Your task to perform on an android device: all mails in gmail Image 0: 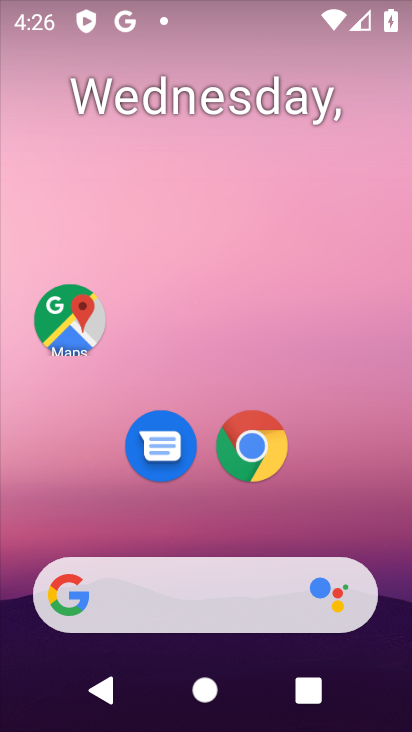
Step 0: drag from (121, 551) to (222, 99)
Your task to perform on an android device: all mails in gmail Image 1: 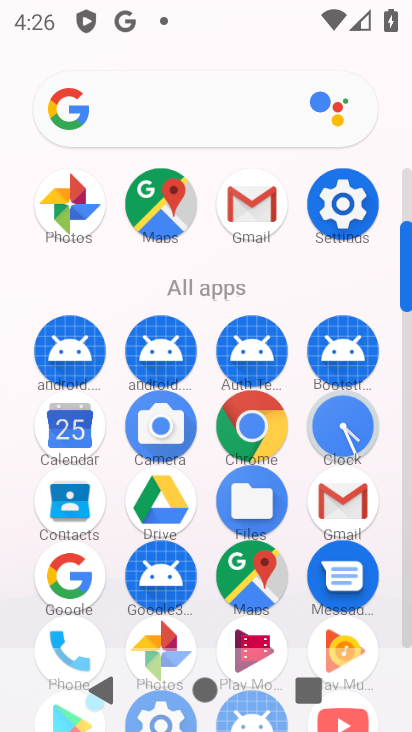
Step 1: click (329, 517)
Your task to perform on an android device: all mails in gmail Image 2: 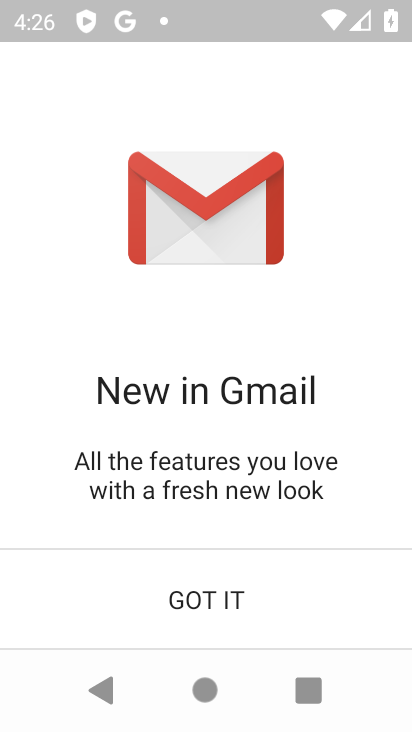
Step 2: click (199, 592)
Your task to perform on an android device: all mails in gmail Image 3: 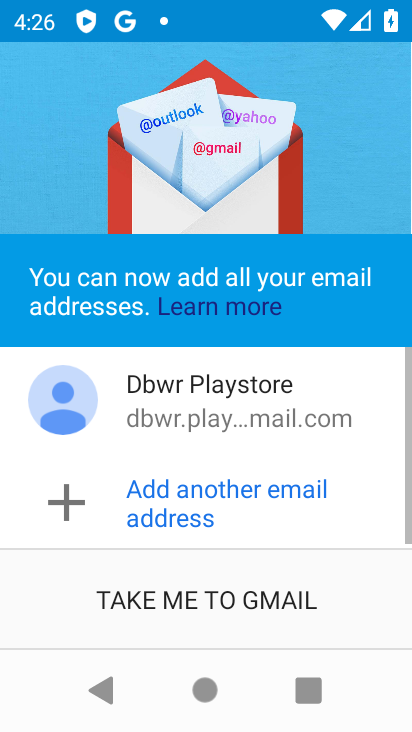
Step 3: click (198, 596)
Your task to perform on an android device: all mails in gmail Image 4: 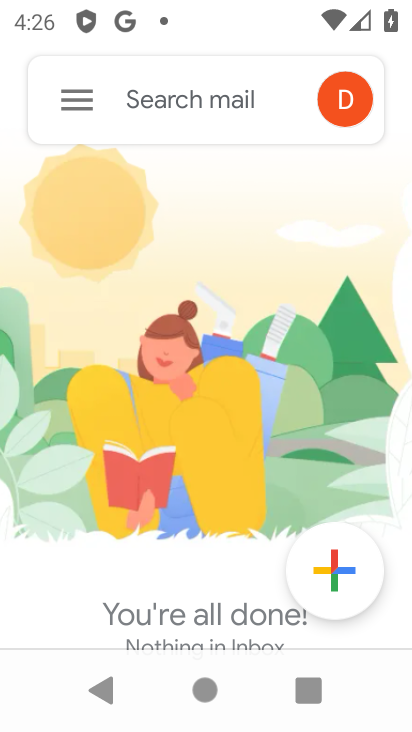
Step 4: click (86, 92)
Your task to perform on an android device: all mails in gmail Image 5: 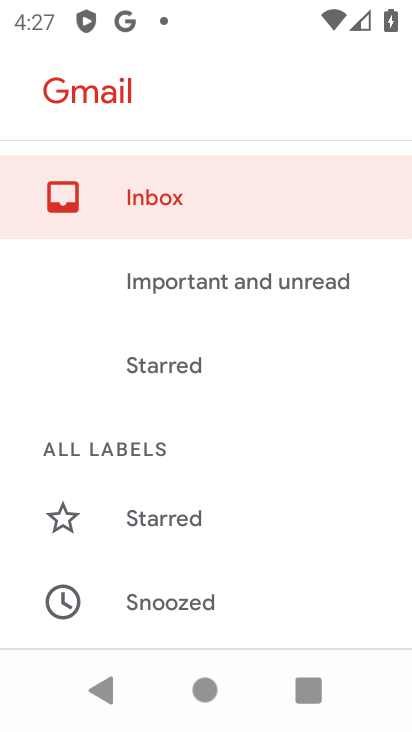
Step 5: drag from (131, 581) to (260, 176)
Your task to perform on an android device: all mails in gmail Image 6: 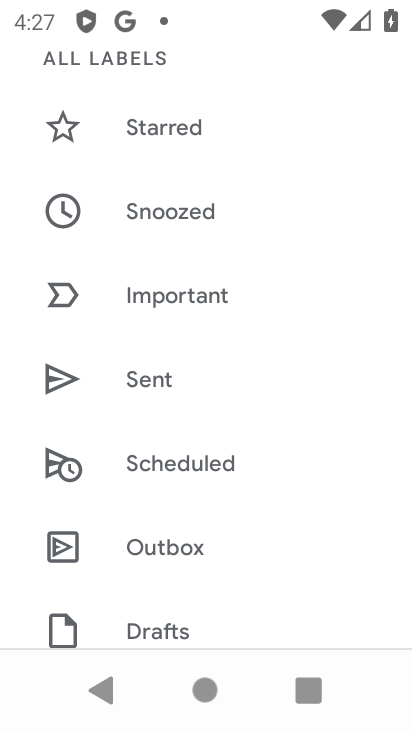
Step 6: drag from (158, 557) to (231, 290)
Your task to perform on an android device: all mails in gmail Image 7: 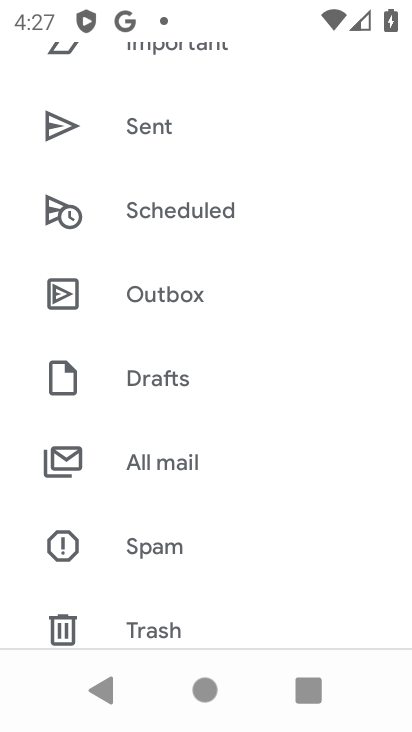
Step 7: drag from (178, 600) to (199, 460)
Your task to perform on an android device: all mails in gmail Image 8: 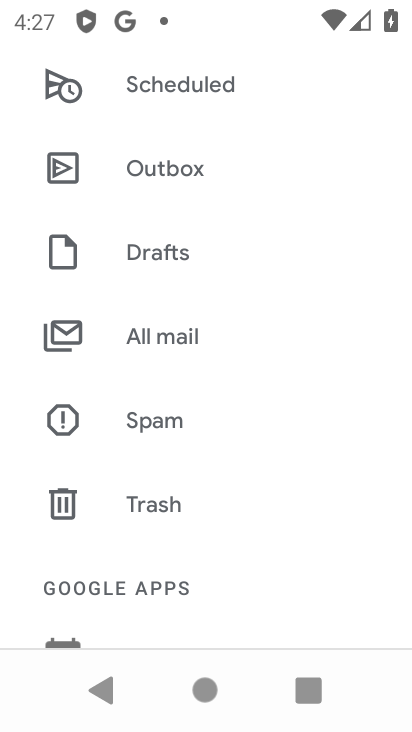
Step 8: click (202, 353)
Your task to perform on an android device: all mails in gmail Image 9: 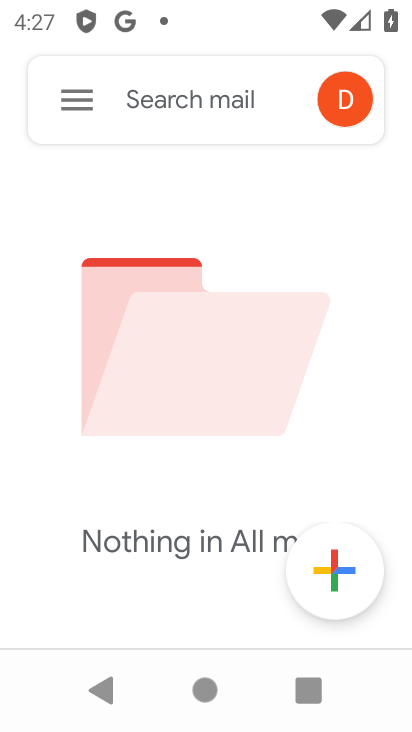
Step 9: task complete